Your task to perform on an android device: make emails show in primary in the gmail app Image 0: 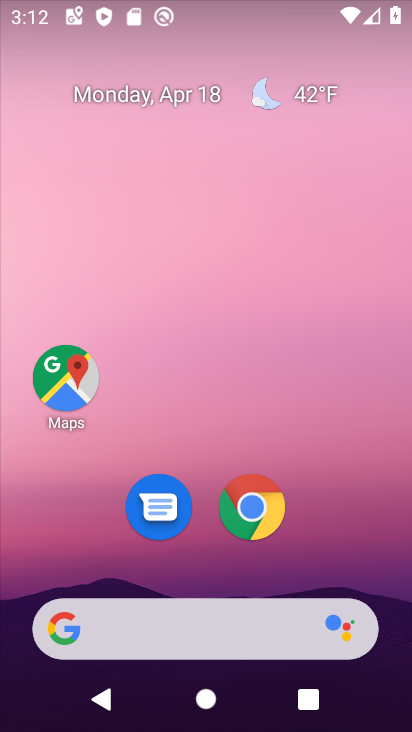
Step 0: drag from (388, 567) to (381, 138)
Your task to perform on an android device: make emails show in primary in the gmail app Image 1: 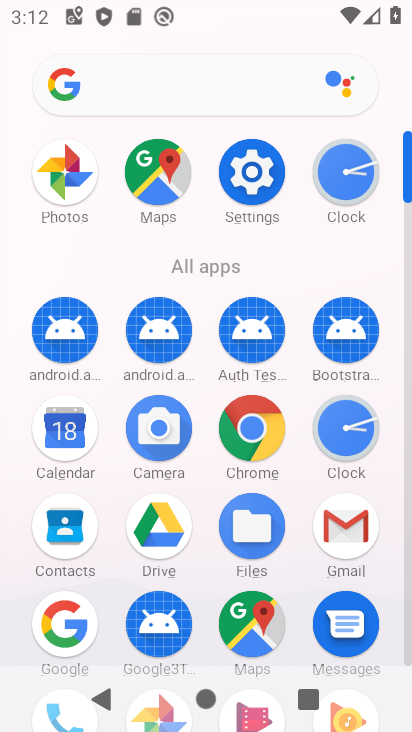
Step 1: click (345, 537)
Your task to perform on an android device: make emails show in primary in the gmail app Image 2: 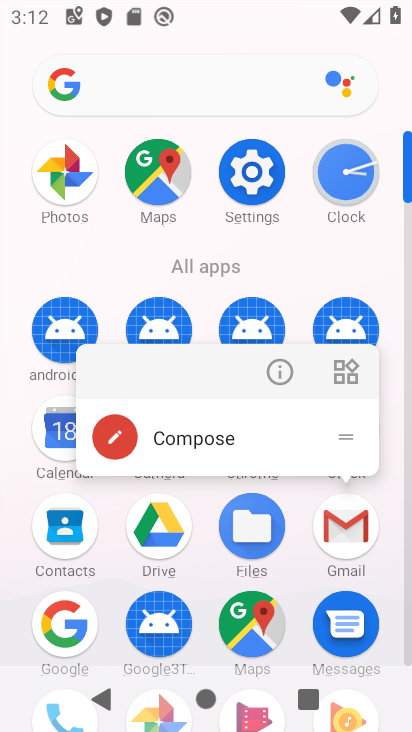
Step 2: click (346, 537)
Your task to perform on an android device: make emails show in primary in the gmail app Image 3: 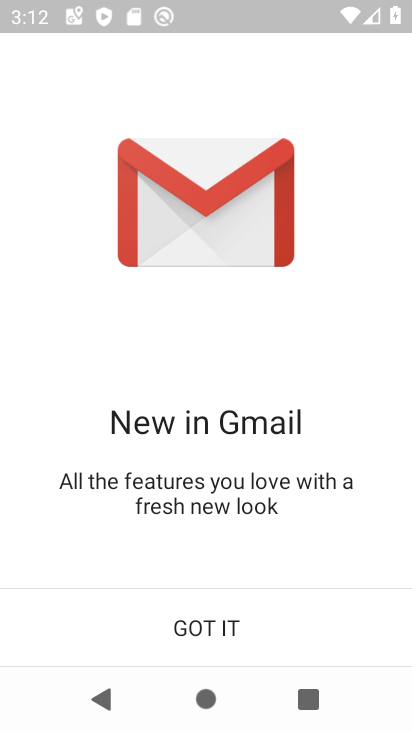
Step 3: click (194, 633)
Your task to perform on an android device: make emails show in primary in the gmail app Image 4: 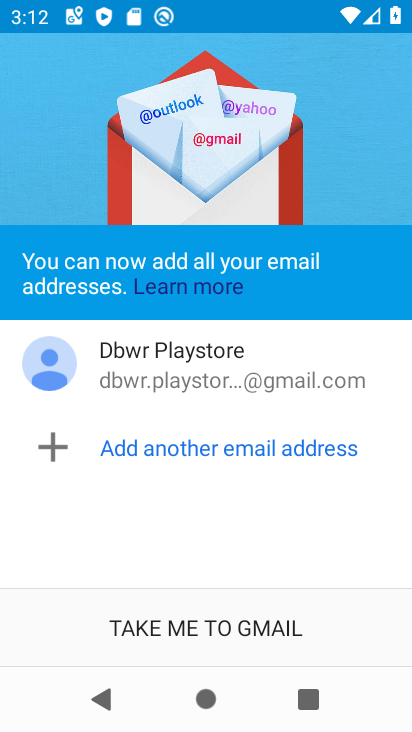
Step 4: click (194, 633)
Your task to perform on an android device: make emails show in primary in the gmail app Image 5: 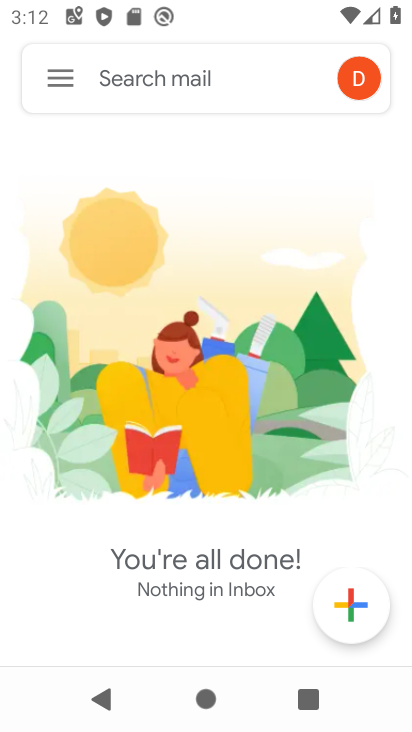
Step 5: click (50, 81)
Your task to perform on an android device: make emails show in primary in the gmail app Image 6: 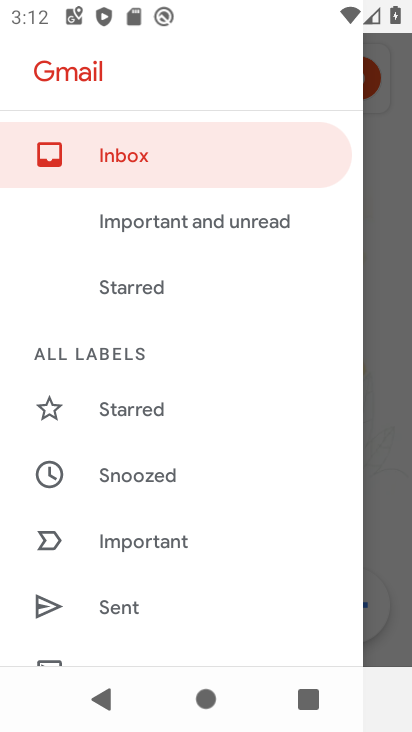
Step 6: drag from (200, 581) to (231, 244)
Your task to perform on an android device: make emails show in primary in the gmail app Image 7: 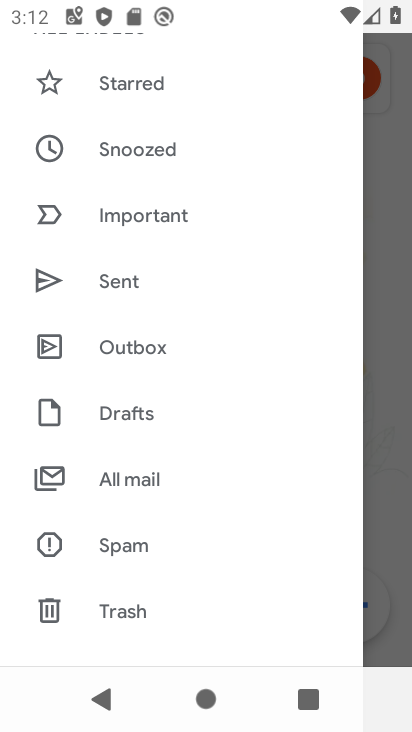
Step 7: drag from (236, 537) to (247, 240)
Your task to perform on an android device: make emails show in primary in the gmail app Image 8: 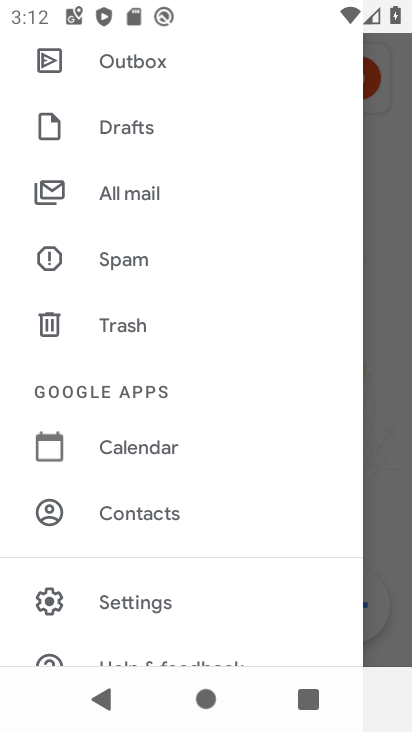
Step 8: drag from (201, 571) to (240, 322)
Your task to perform on an android device: make emails show in primary in the gmail app Image 9: 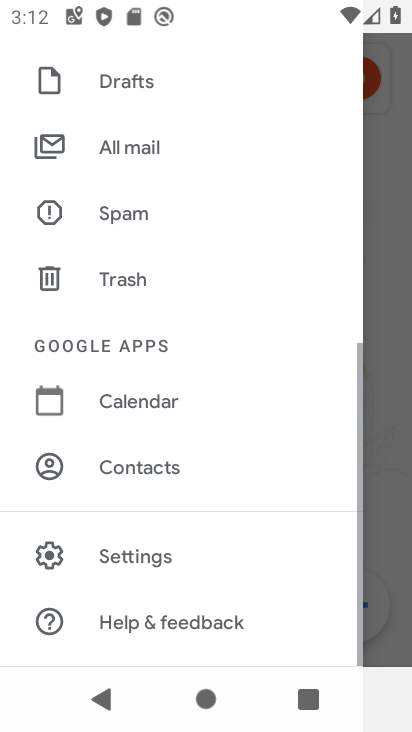
Step 9: click (134, 582)
Your task to perform on an android device: make emails show in primary in the gmail app Image 10: 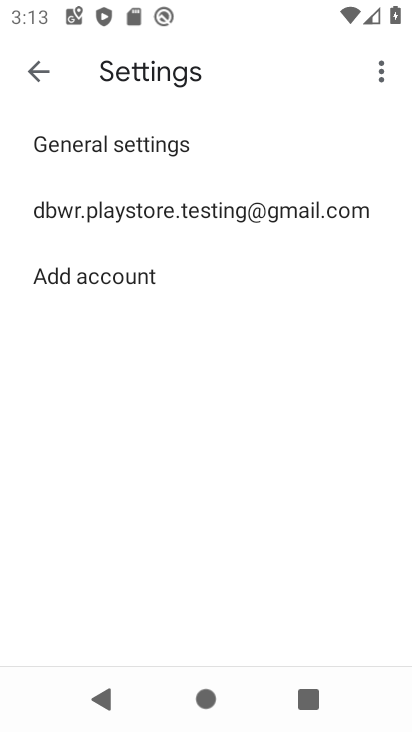
Step 10: click (192, 211)
Your task to perform on an android device: make emails show in primary in the gmail app Image 11: 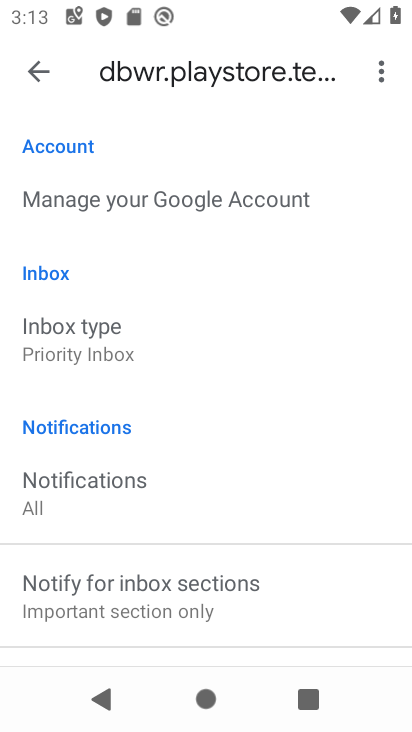
Step 11: click (50, 349)
Your task to perform on an android device: make emails show in primary in the gmail app Image 12: 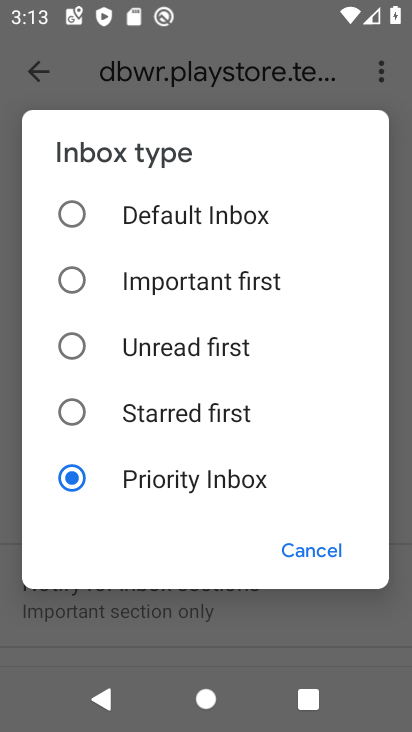
Step 12: click (69, 215)
Your task to perform on an android device: make emails show in primary in the gmail app Image 13: 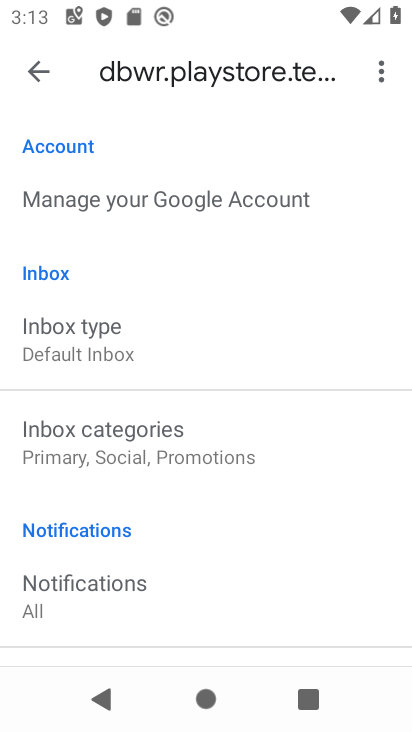
Step 13: task complete